Your task to perform on an android device: Empty the shopping cart on walmart. Image 0: 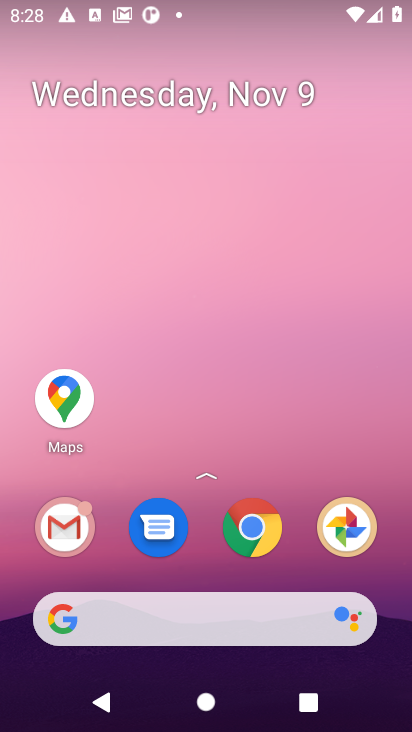
Step 0: click (258, 536)
Your task to perform on an android device: Empty the shopping cart on walmart. Image 1: 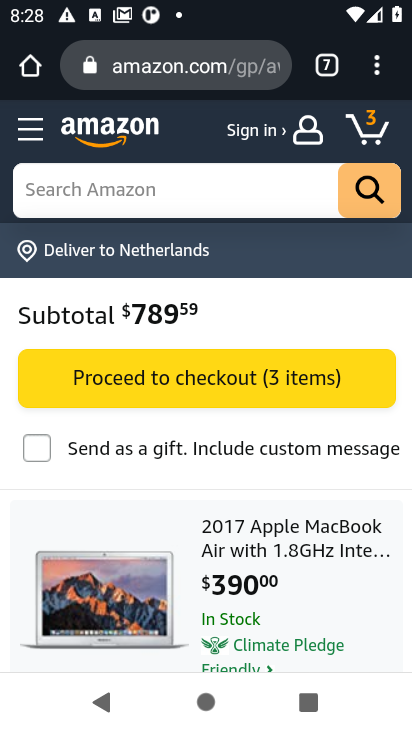
Step 1: click (192, 66)
Your task to perform on an android device: Empty the shopping cart on walmart. Image 2: 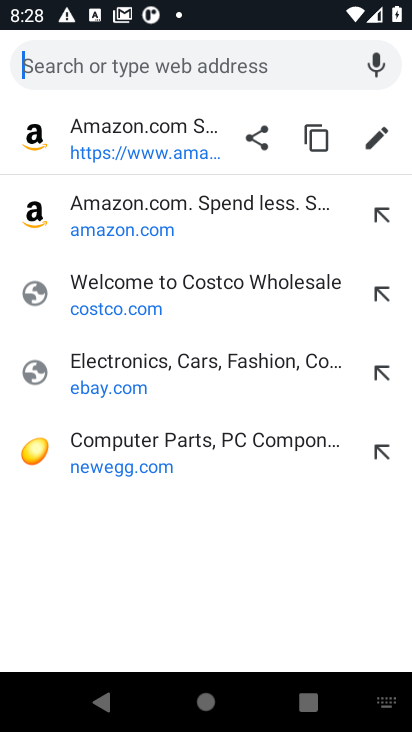
Step 2: type "walmart.com"
Your task to perform on an android device: Empty the shopping cart on walmart. Image 3: 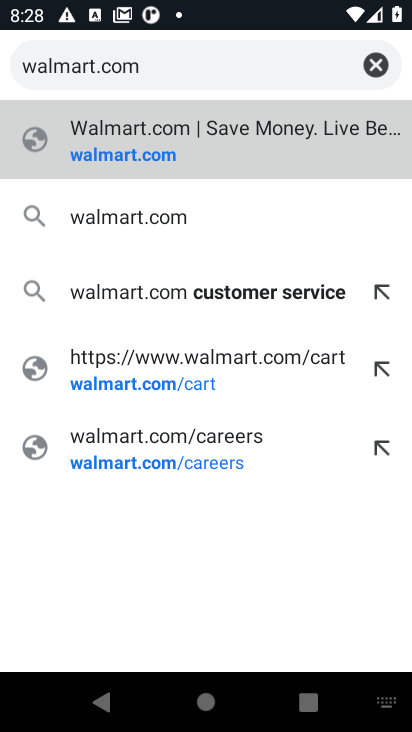
Step 3: click (119, 165)
Your task to perform on an android device: Empty the shopping cart on walmart. Image 4: 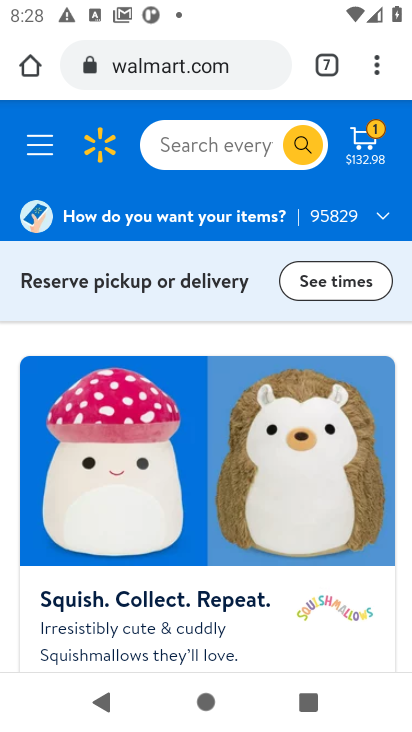
Step 4: click (364, 151)
Your task to perform on an android device: Empty the shopping cart on walmart. Image 5: 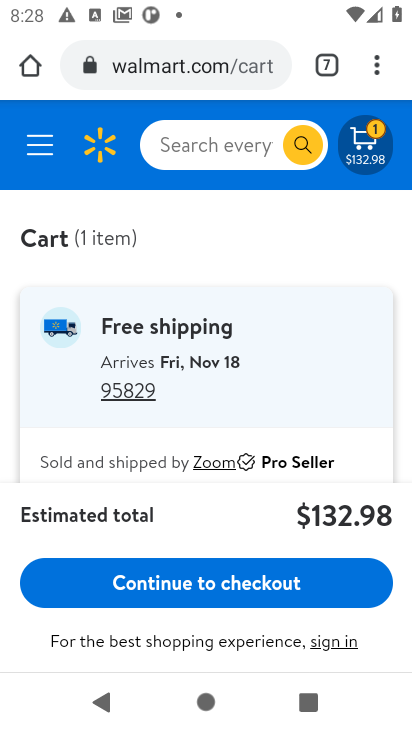
Step 5: drag from (254, 461) to (246, 251)
Your task to perform on an android device: Empty the shopping cart on walmart. Image 6: 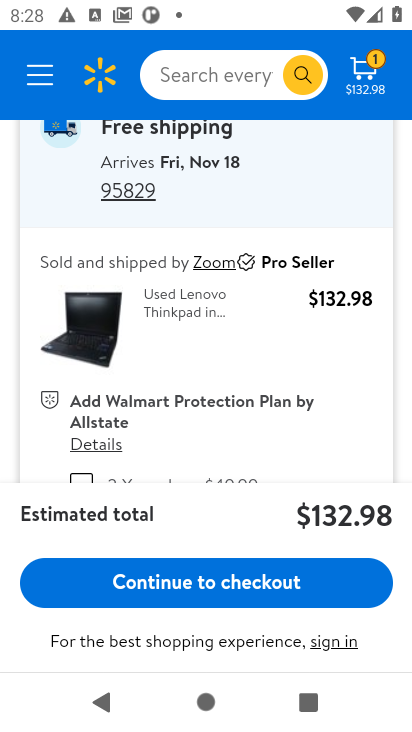
Step 6: drag from (202, 391) to (211, 235)
Your task to perform on an android device: Empty the shopping cart on walmart. Image 7: 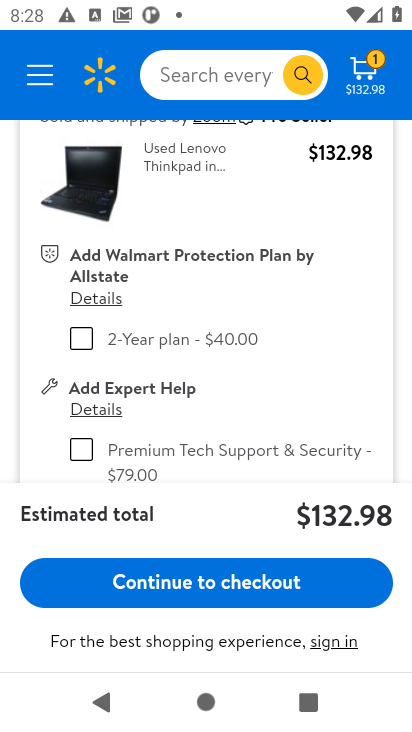
Step 7: drag from (187, 392) to (194, 210)
Your task to perform on an android device: Empty the shopping cart on walmart. Image 8: 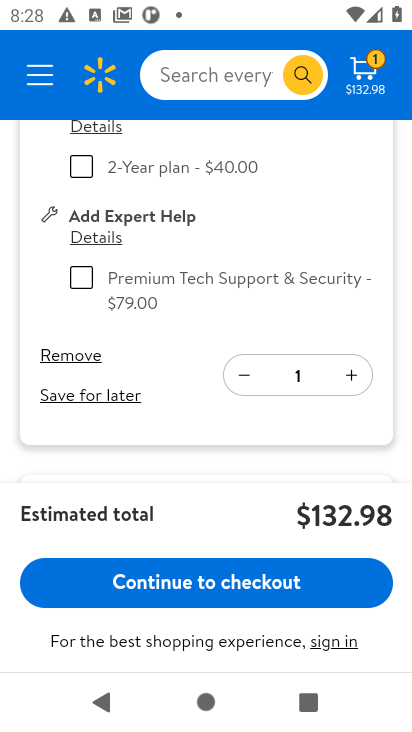
Step 8: click (57, 362)
Your task to perform on an android device: Empty the shopping cart on walmart. Image 9: 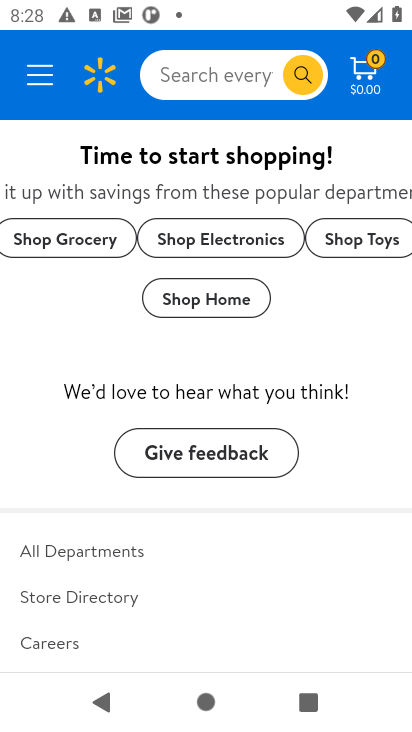
Step 9: task complete